Your task to perform on an android device: Turn off the flashlight Image 0: 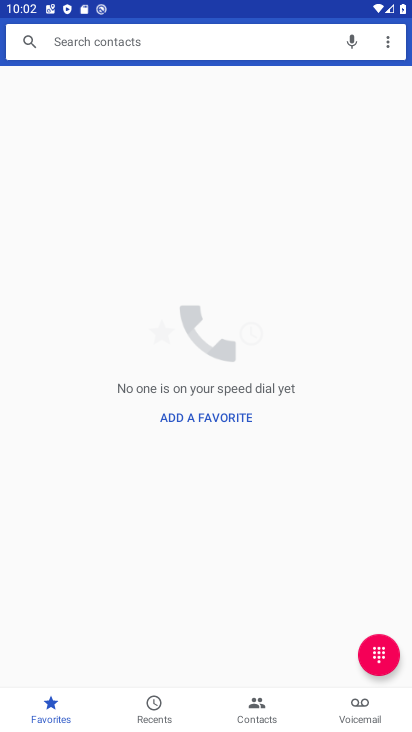
Step 0: press back button
Your task to perform on an android device: Turn off the flashlight Image 1: 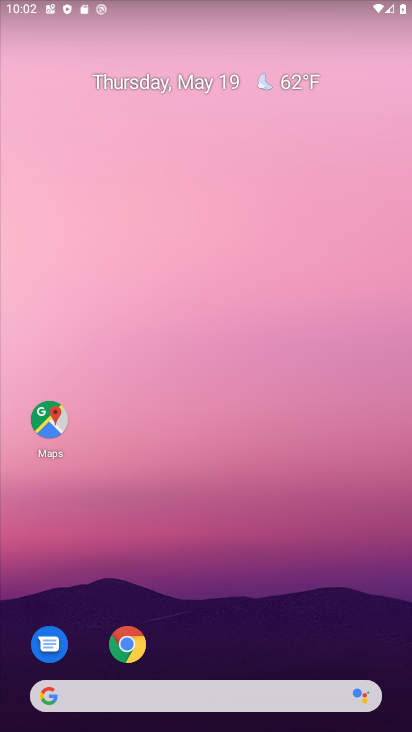
Step 1: task complete